Your task to perform on an android device: turn off airplane mode Image 0: 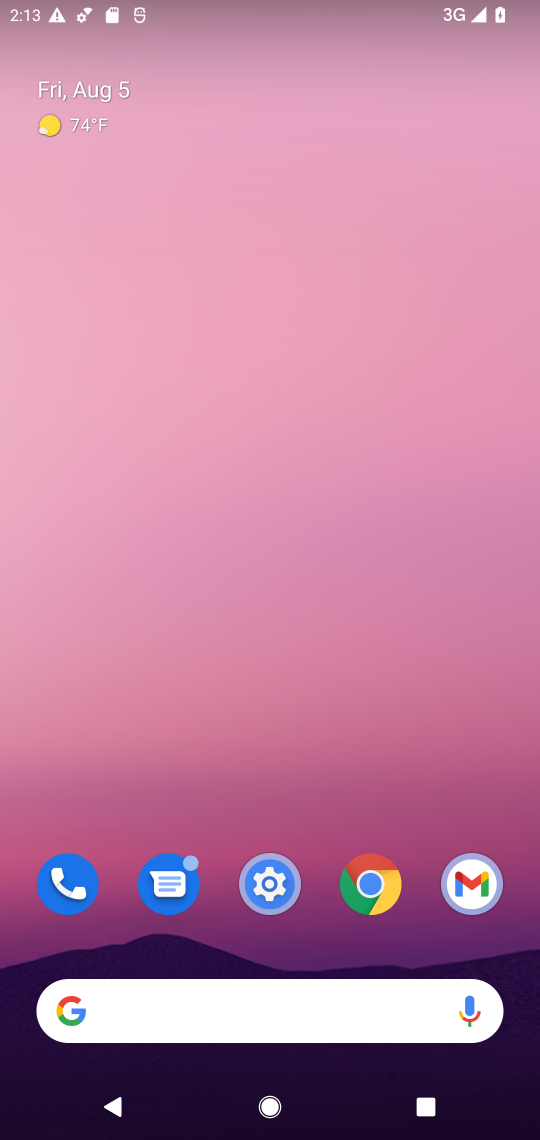
Step 0: drag from (469, 823) to (404, 431)
Your task to perform on an android device: turn off airplane mode Image 1: 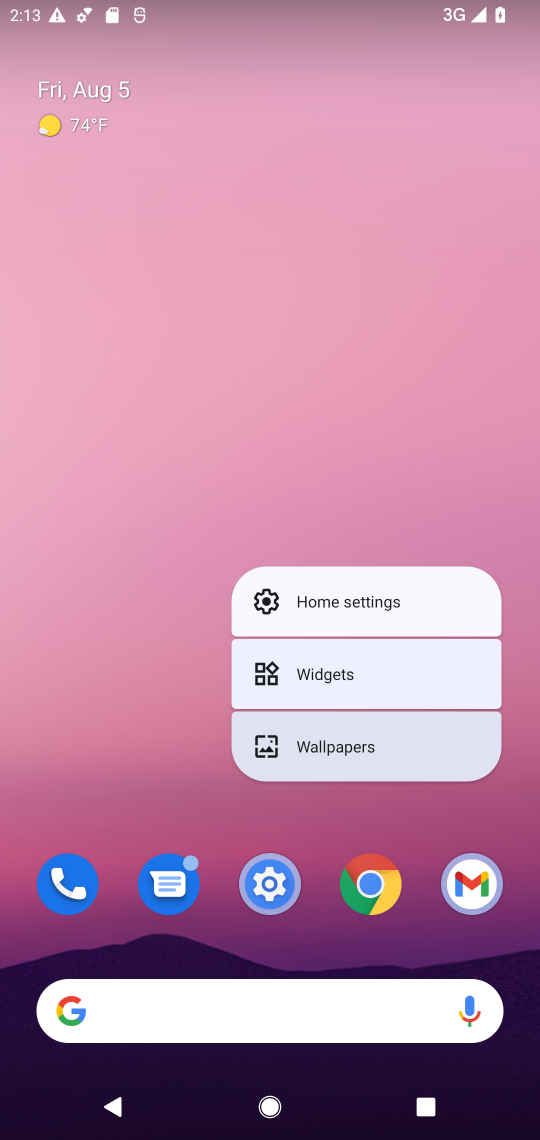
Step 1: click (394, 403)
Your task to perform on an android device: turn off airplane mode Image 2: 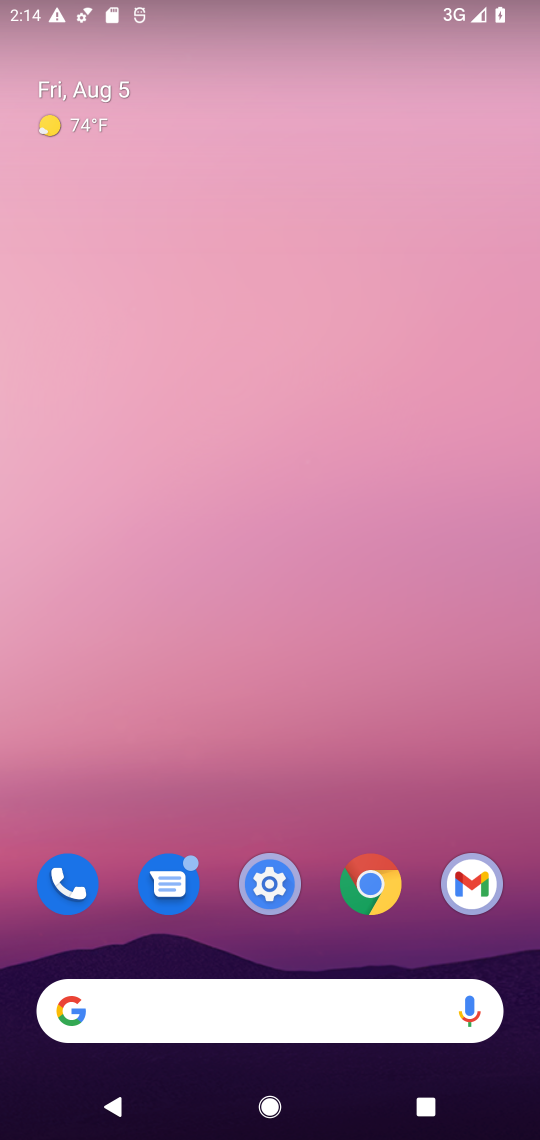
Step 2: task complete